Your task to perform on an android device: open a new tab in the chrome app Image 0: 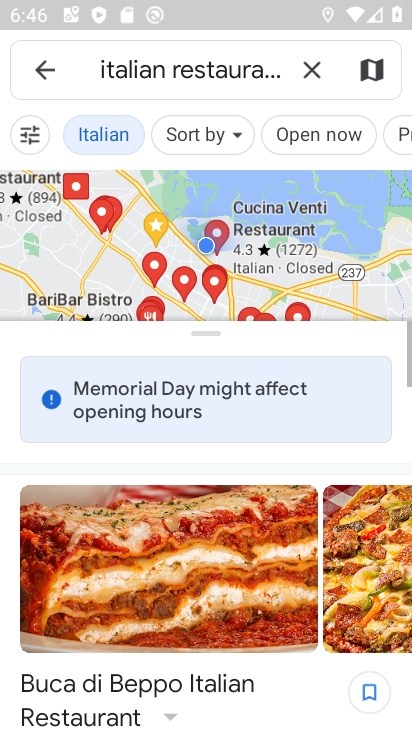
Step 0: press back button
Your task to perform on an android device: open a new tab in the chrome app Image 1: 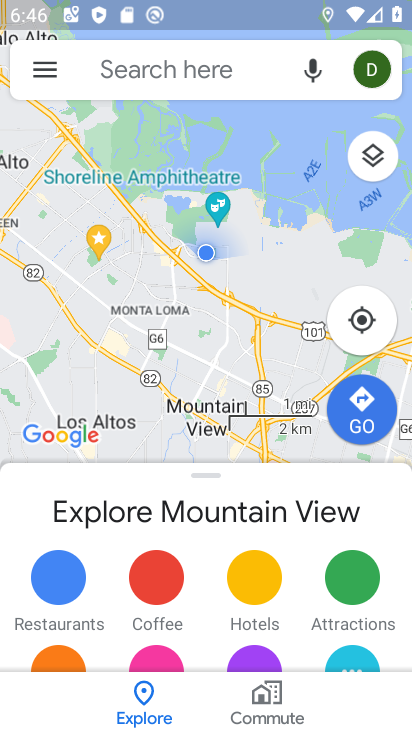
Step 1: press home button
Your task to perform on an android device: open a new tab in the chrome app Image 2: 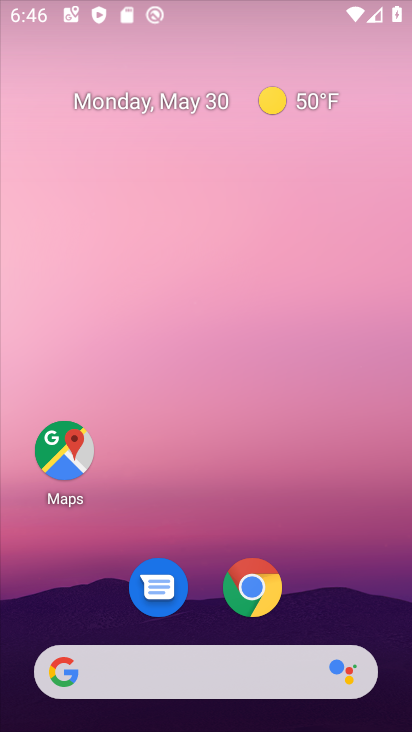
Step 2: drag from (334, 488) to (239, 39)
Your task to perform on an android device: open a new tab in the chrome app Image 3: 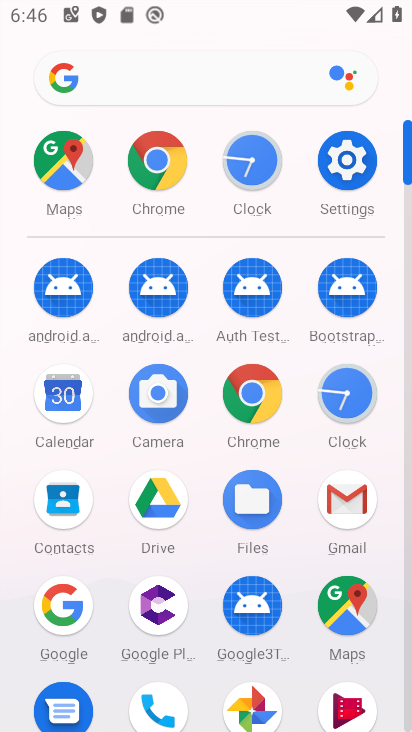
Step 3: drag from (20, 501) to (26, 219)
Your task to perform on an android device: open a new tab in the chrome app Image 4: 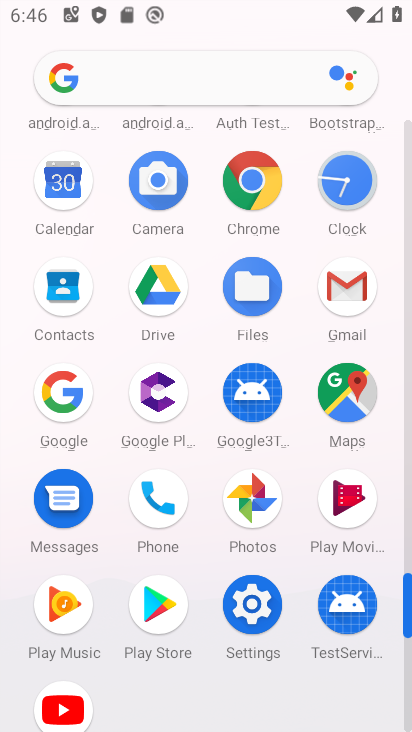
Step 4: click (248, 176)
Your task to perform on an android device: open a new tab in the chrome app Image 5: 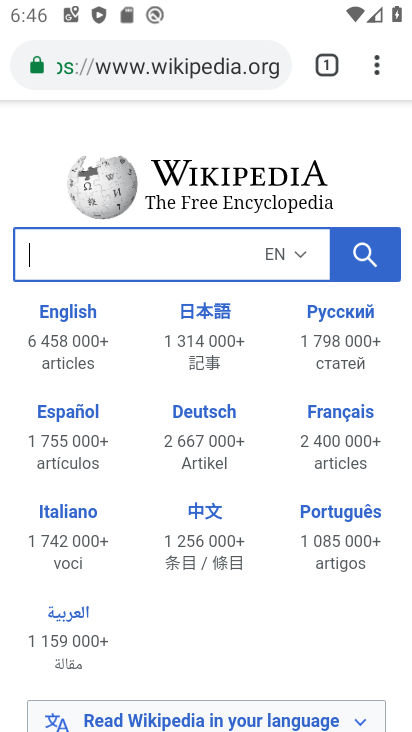
Step 5: task complete